Your task to perform on an android device: turn off data saver in the chrome app Image 0: 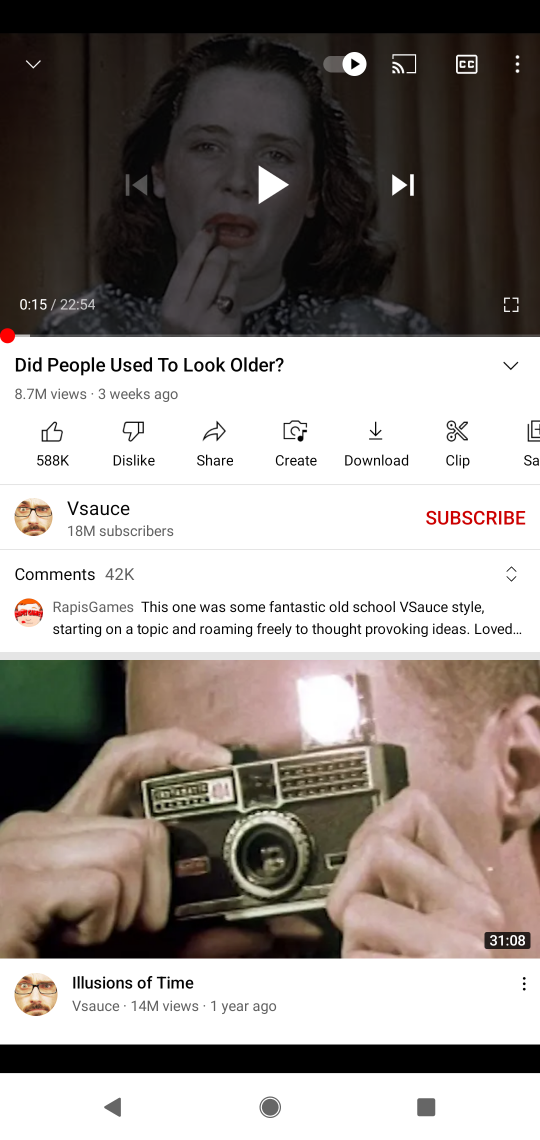
Step 0: press home button
Your task to perform on an android device: turn off data saver in the chrome app Image 1: 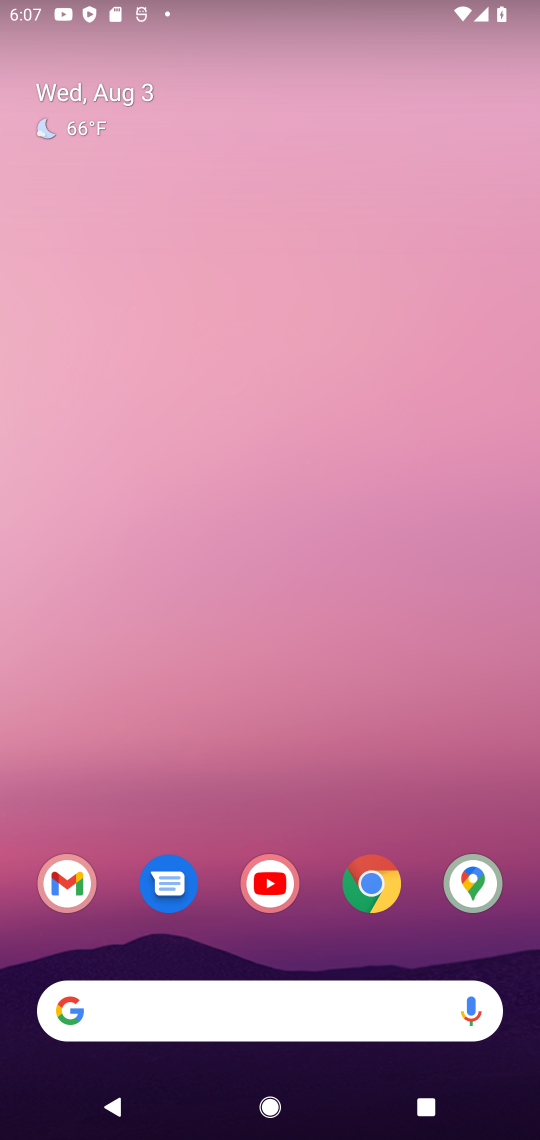
Step 1: click (360, 883)
Your task to perform on an android device: turn off data saver in the chrome app Image 2: 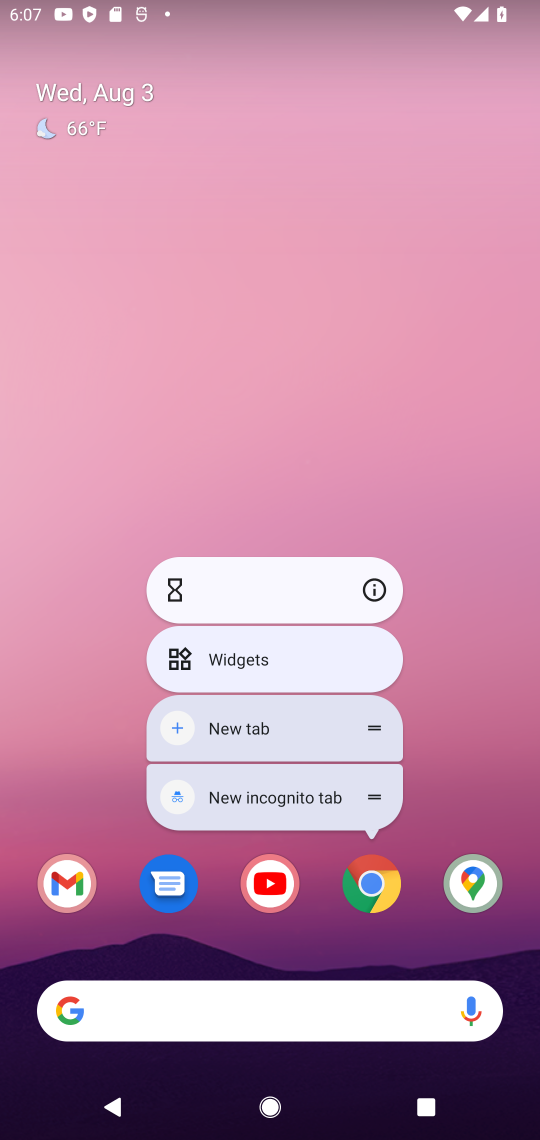
Step 2: click (360, 883)
Your task to perform on an android device: turn off data saver in the chrome app Image 3: 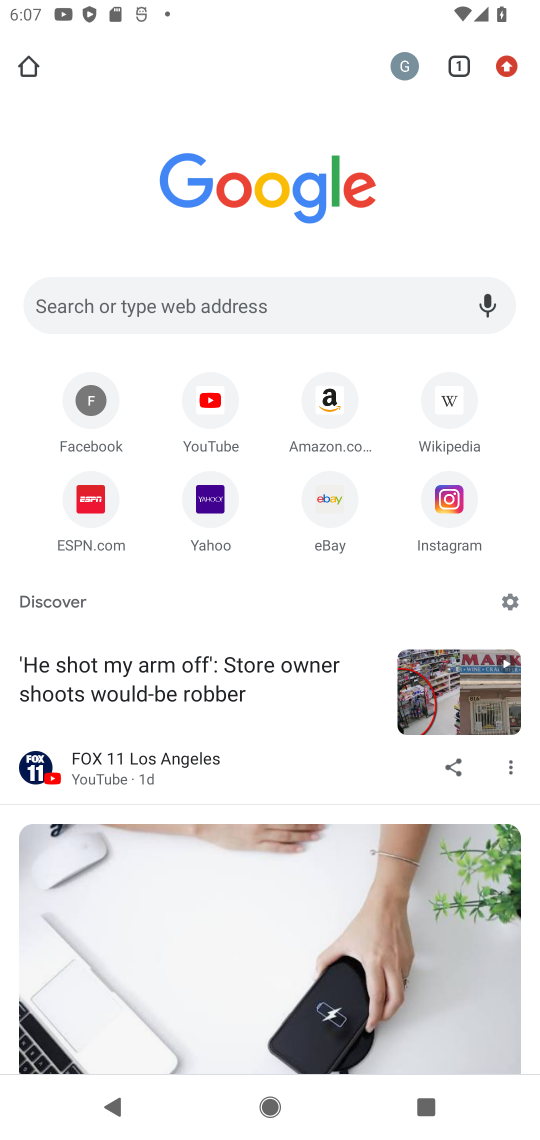
Step 3: click (499, 67)
Your task to perform on an android device: turn off data saver in the chrome app Image 4: 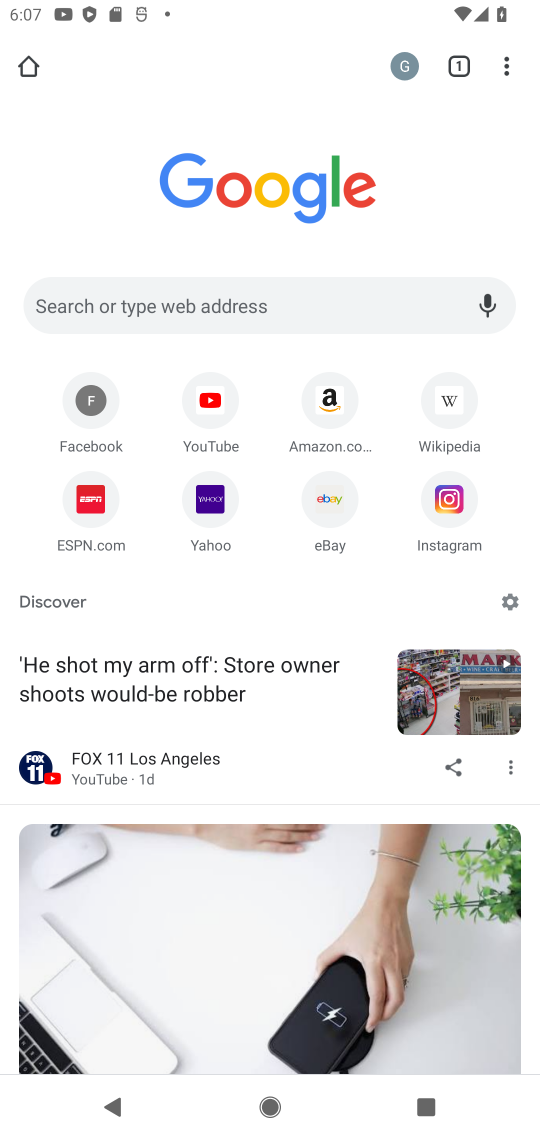
Step 4: click (508, 63)
Your task to perform on an android device: turn off data saver in the chrome app Image 5: 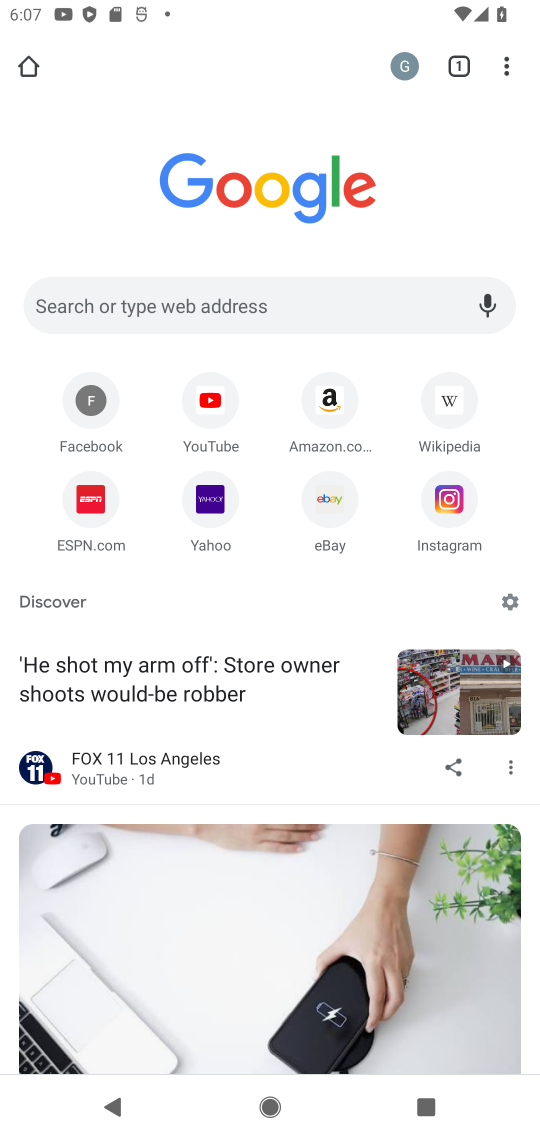
Step 5: click (507, 67)
Your task to perform on an android device: turn off data saver in the chrome app Image 6: 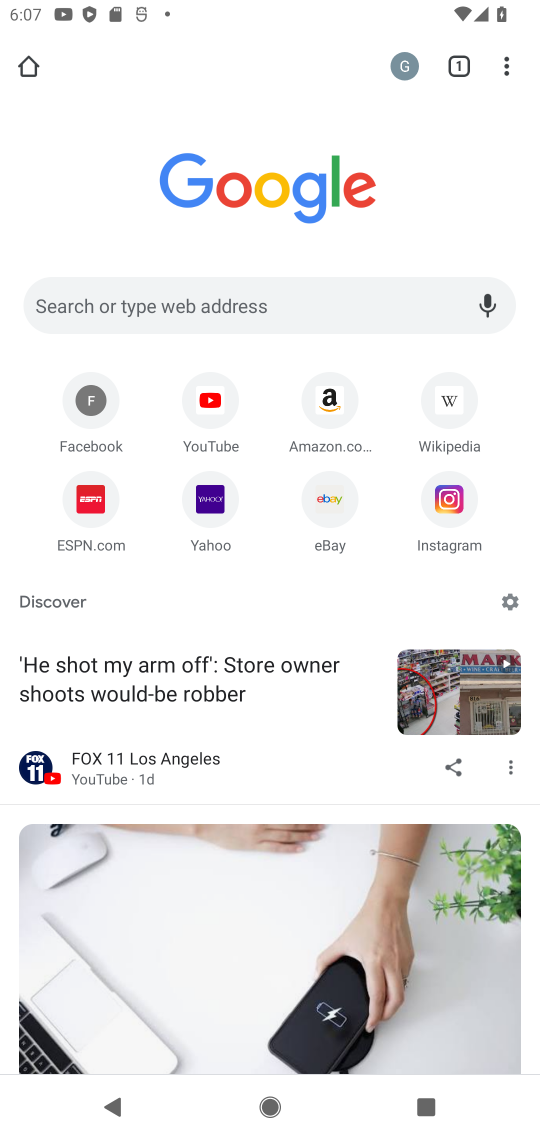
Step 6: click (507, 67)
Your task to perform on an android device: turn off data saver in the chrome app Image 7: 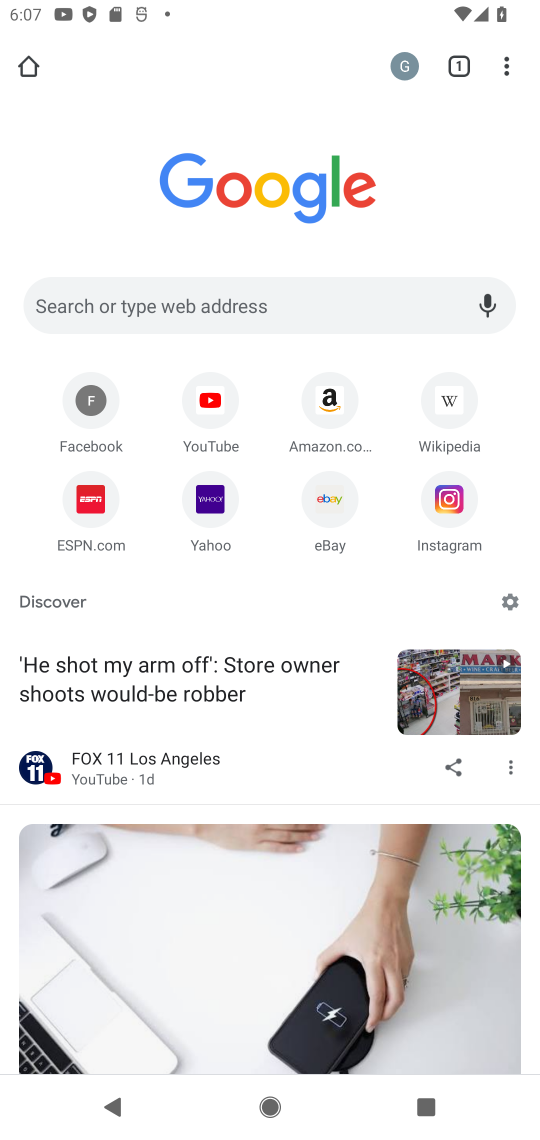
Step 7: click (509, 62)
Your task to perform on an android device: turn off data saver in the chrome app Image 8: 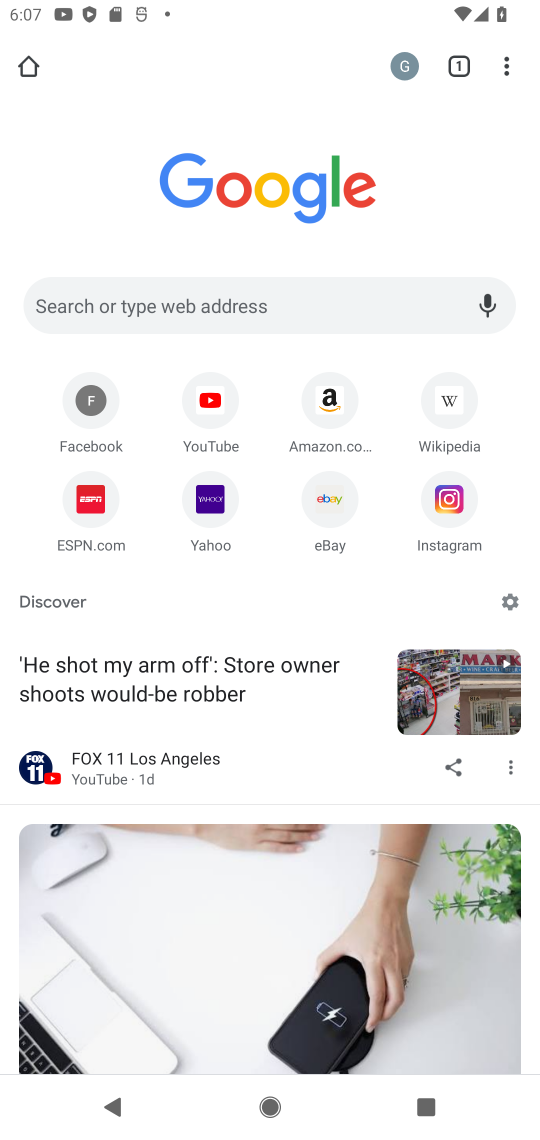
Step 8: click (517, 64)
Your task to perform on an android device: turn off data saver in the chrome app Image 9: 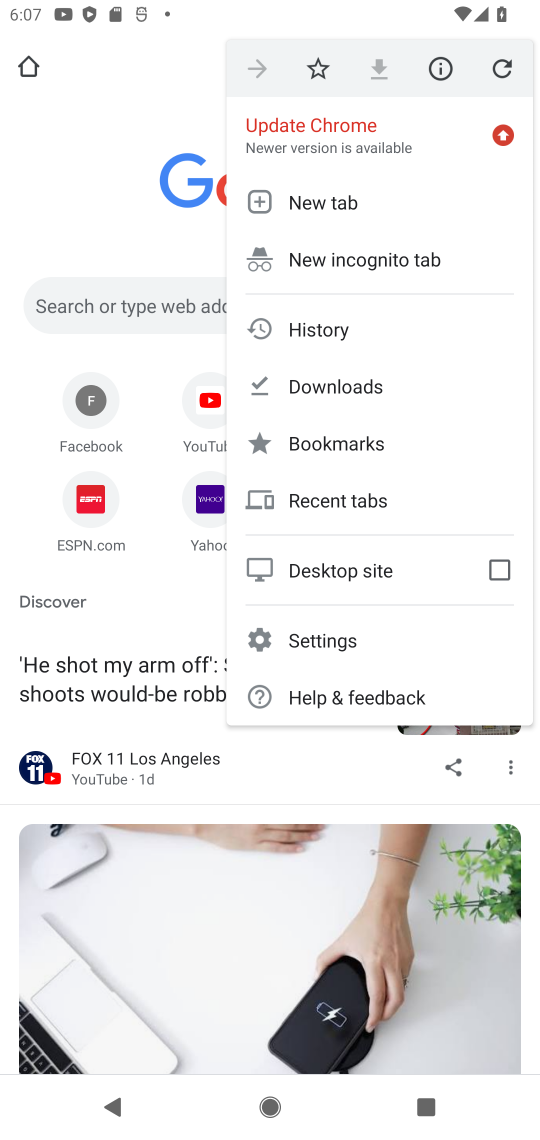
Step 9: click (327, 636)
Your task to perform on an android device: turn off data saver in the chrome app Image 10: 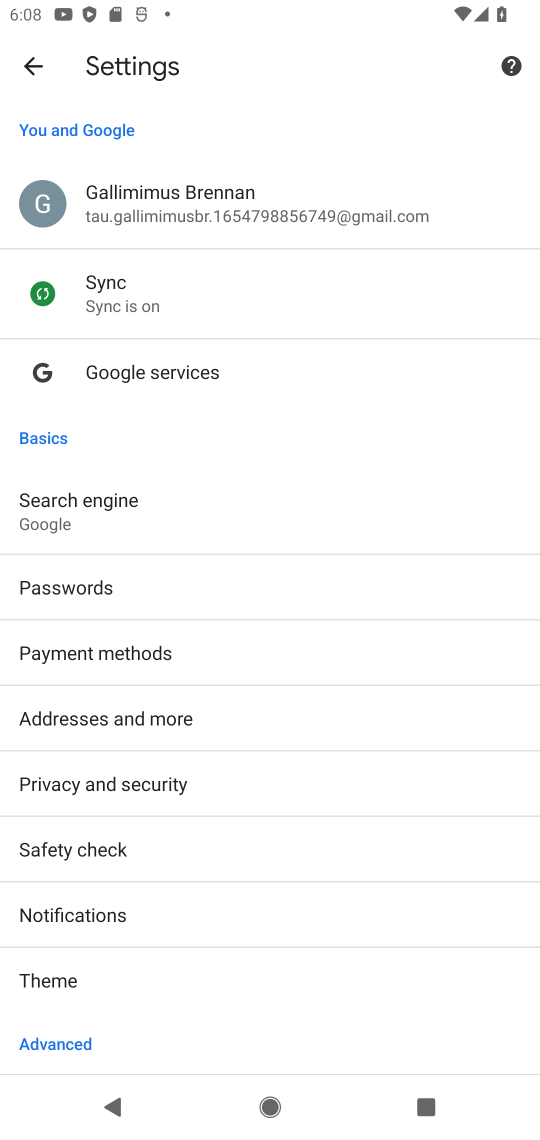
Step 10: drag from (75, 975) to (75, 467)
Your task to perform on an android device: turn off data saver in the chrome app Image 11: 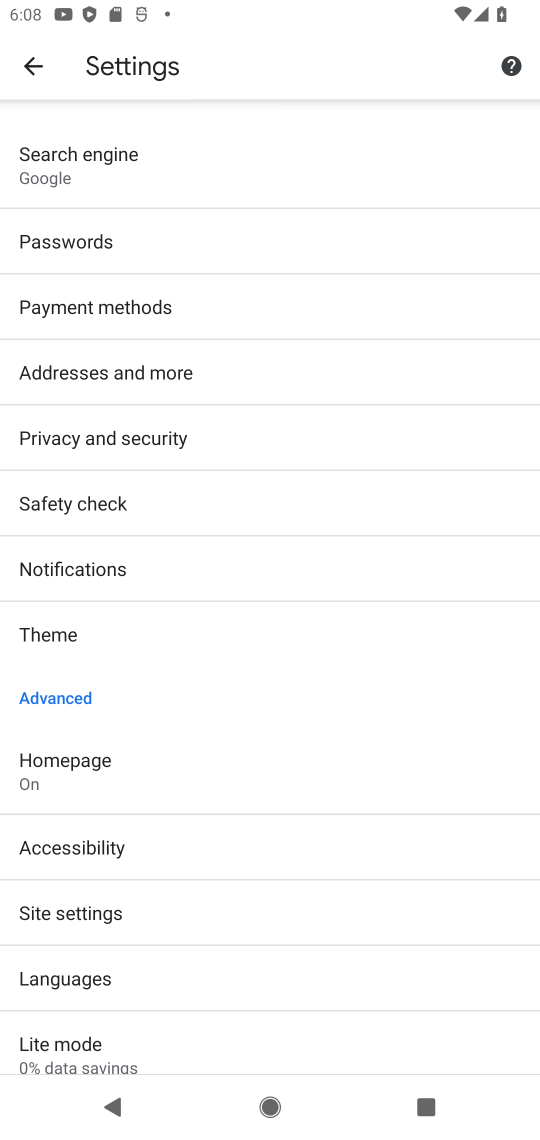
Step 11: click (64, 1057)
Your task to perform on an android device: turn off data saver in the chrome app Image 12: 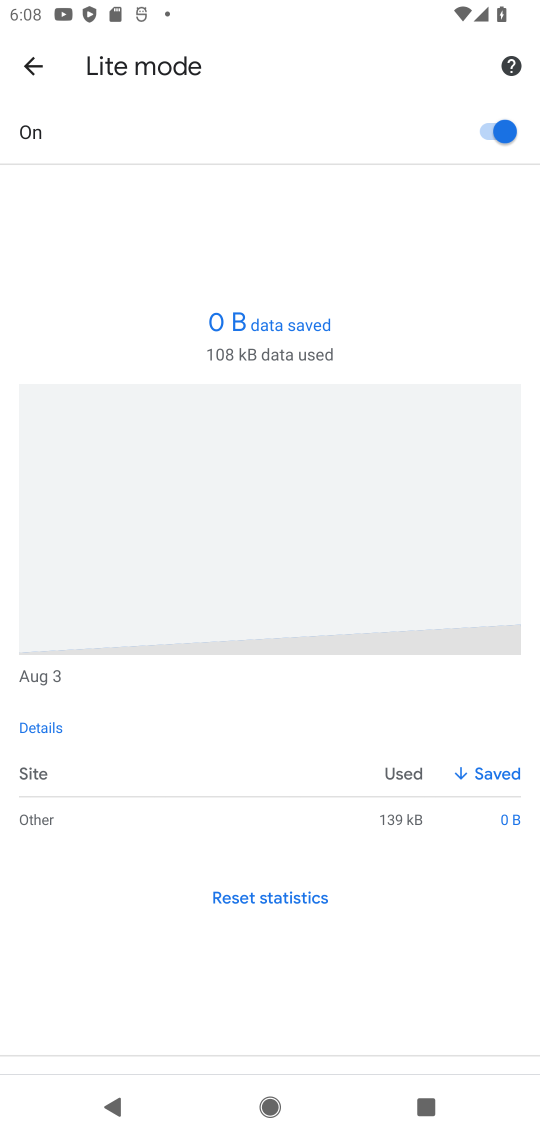
Step 12: click (490, 115)
Your task to perform on an android device: turn off data saver in the chrome app Image 13: 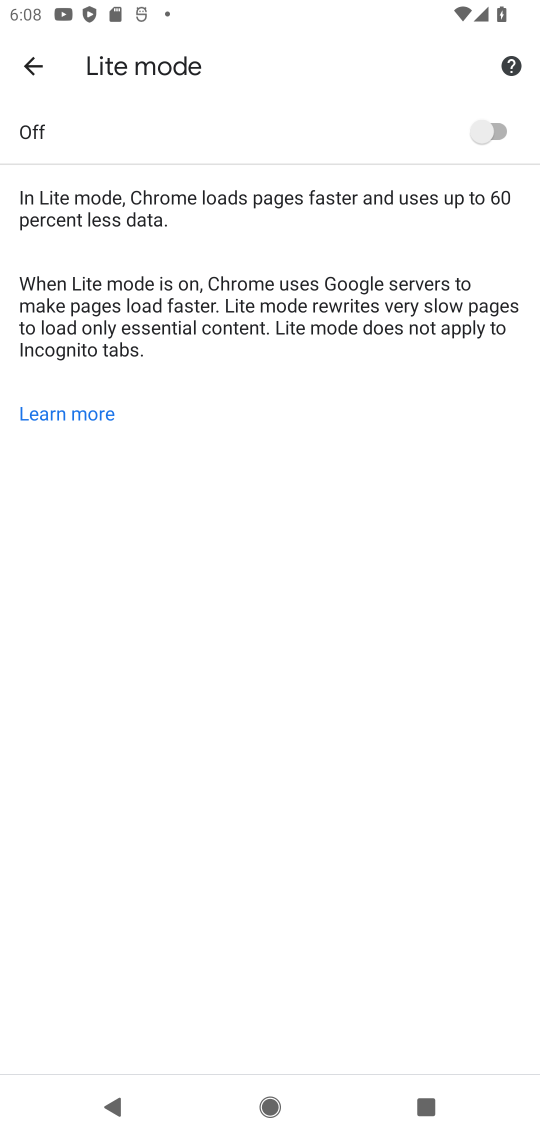
Step 13: task complete